Your task to perform on an android device: See recent photos Image 0: 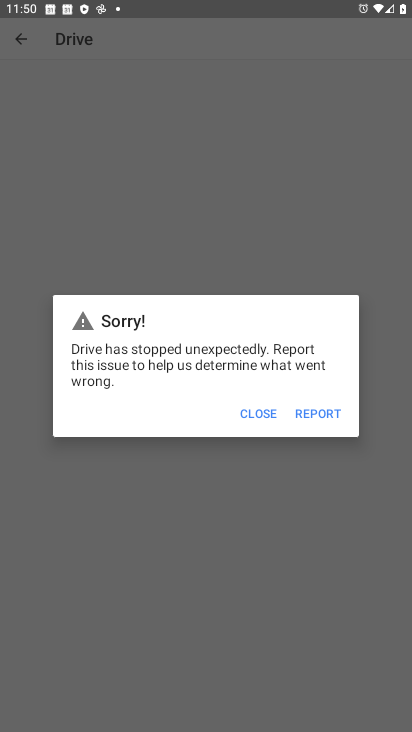
Step 0: press home button
Your task to perform on an android device: See recent photos Image 1: 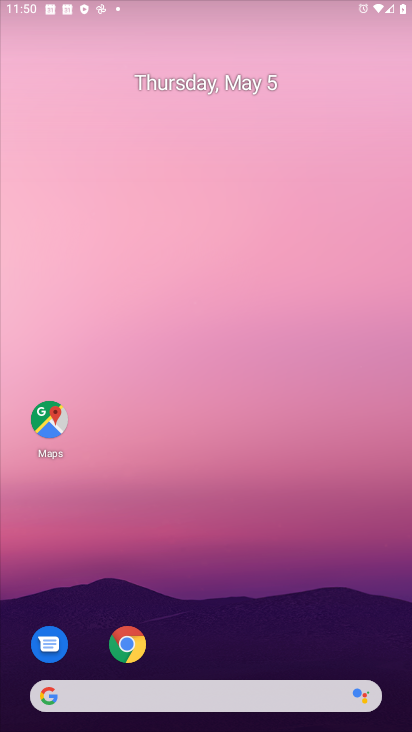
Step 1: drag from (203, 625) to (225, 173)
Your task to perform on an android device: See recent photos Image 2: 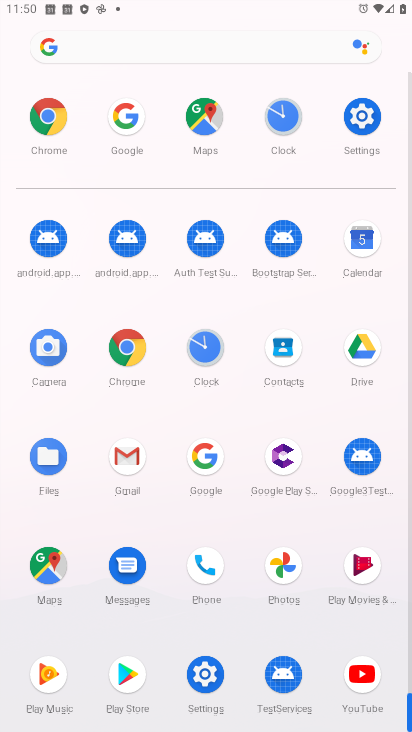
Step 2: click (284, 566)
Your task to perform on an android device: See recent photos Image 3: 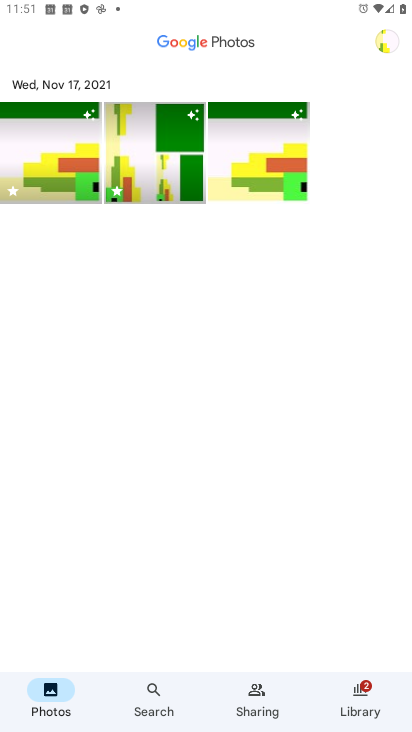
Step 3: click (150, 684)
Your task to perform on an android device: See recent photos Image 4: 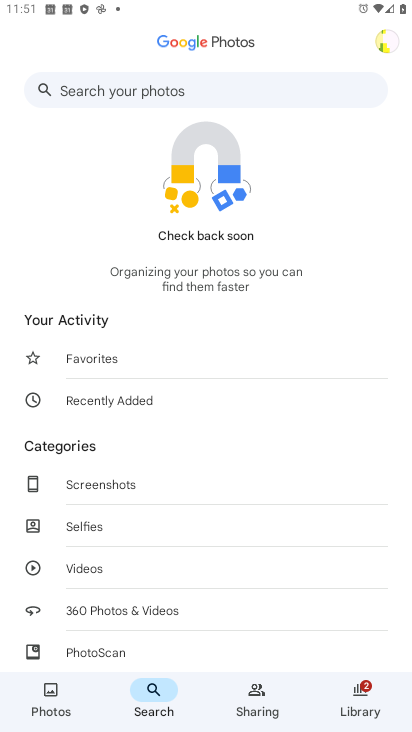
Step 4: drag from (180, 614) to (333, 18)
Your task to perform on an android device: See recent photos Image 5: 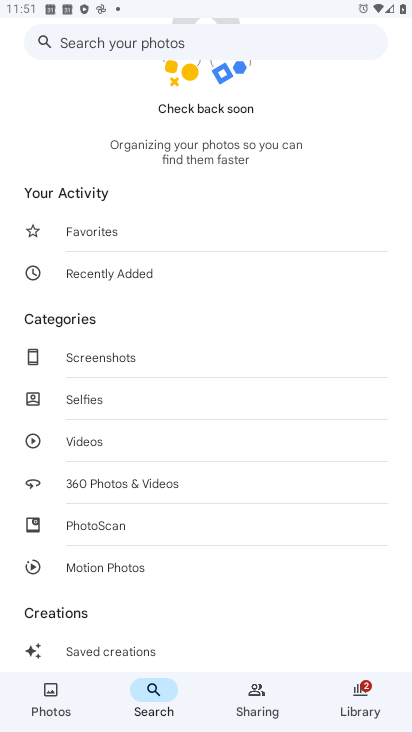
Step 5: click (52, 691)
Your task to perform on an android device: See recent photos Image 6: 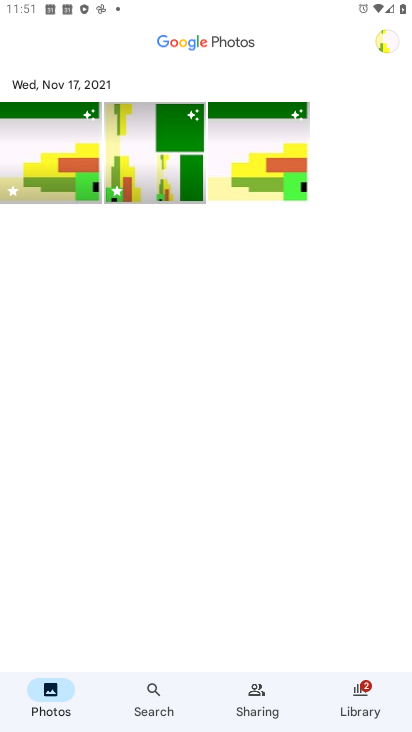
Step 6: click (46, 150)
Your task to perform on an android device: See recent photos Image 7: 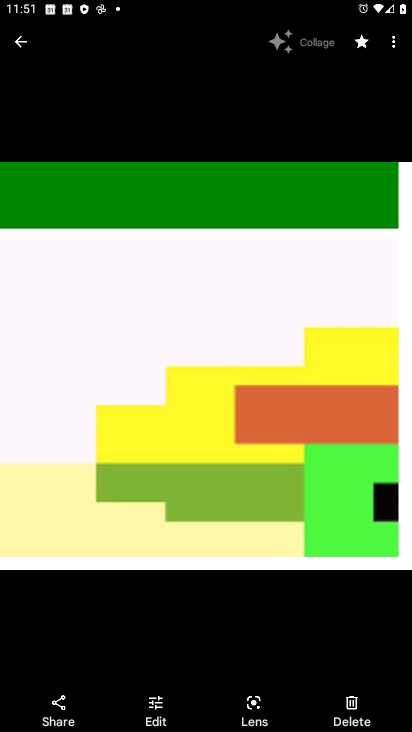
Step 7: task complete